Your task to perform on an android device: turn on airplane mode Image 0: 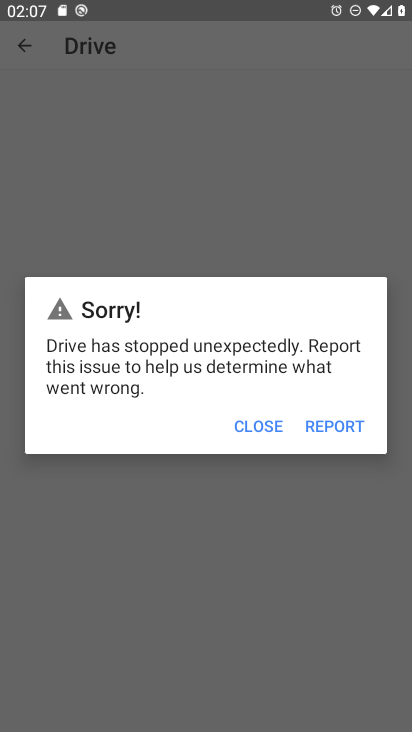
Step 0: press home button
Your task to perform on an android device: turn on airplane mode Image 1: 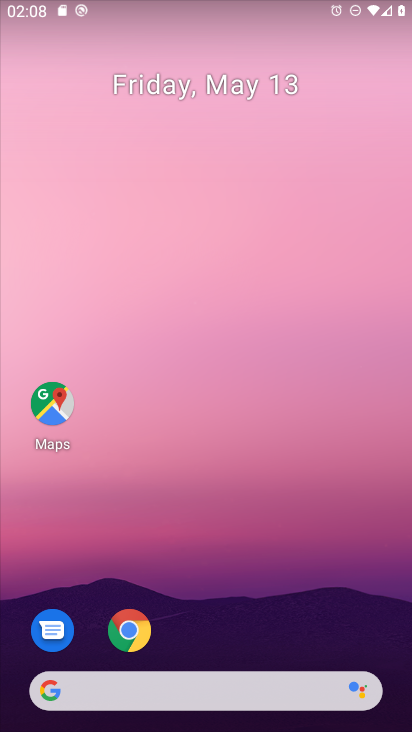
Step 1: drag from (211, 720) to (287, 320)
Your task to perform on an android device: turn on airplane mode Image 2: 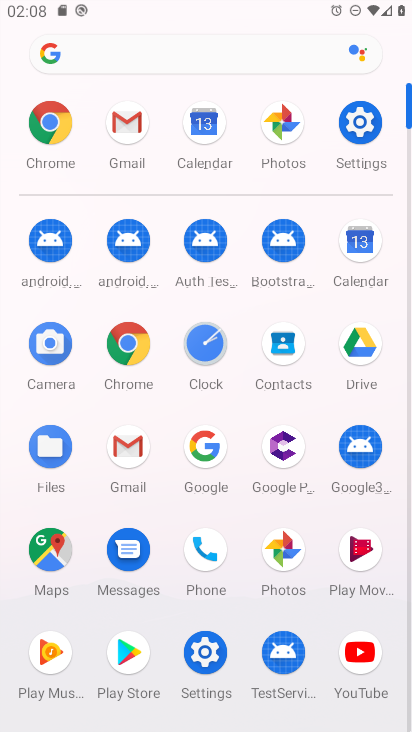
Step 2: click (351, 119)
Your task to perform on an android device: turn on airplane mode Image 3: 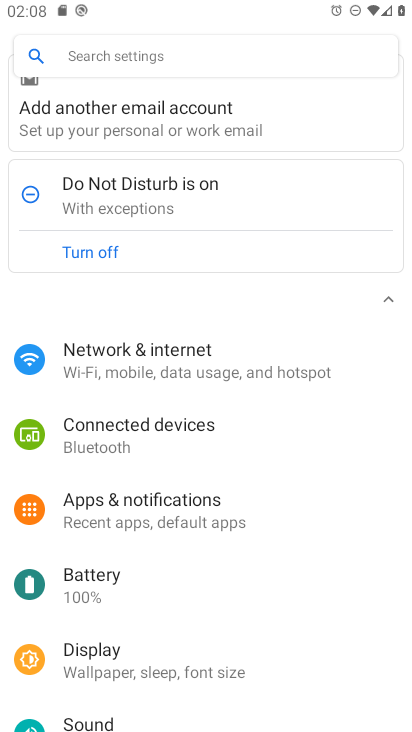
Step 3: click (151, 346)
Your task to perform on an android device: turn on airplane mode Image 4: 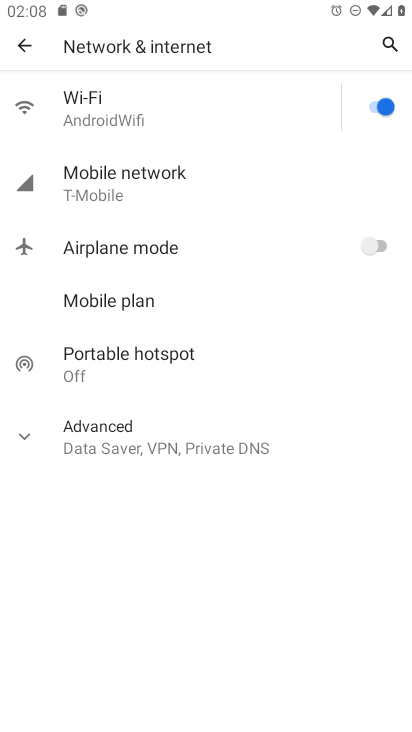
Step 4: click (278, 243)
Your task to perform on an android device: turn on airplane mode Image 5: 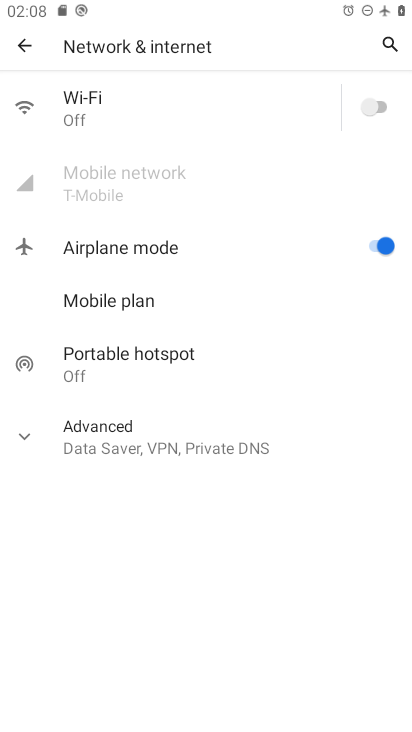
Step 5: task complete